Your task to perform on an android device: turn off smart reply in the gmail app Image 0: 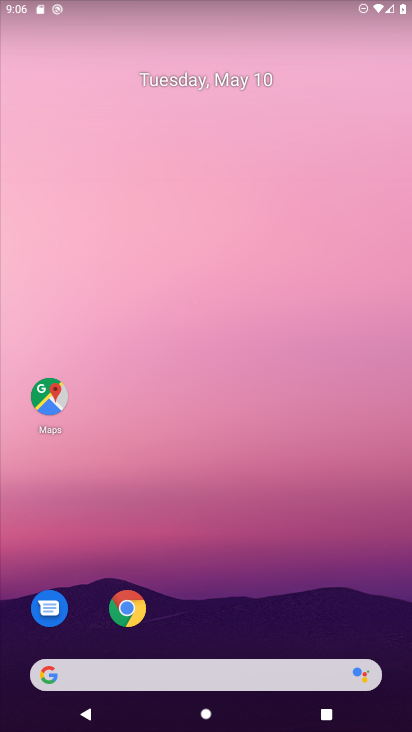
Step 0: drag from (370, 617) to (331, 32)
Your task to perform on an android device: turn off smart reply in the gmail app Image 1: 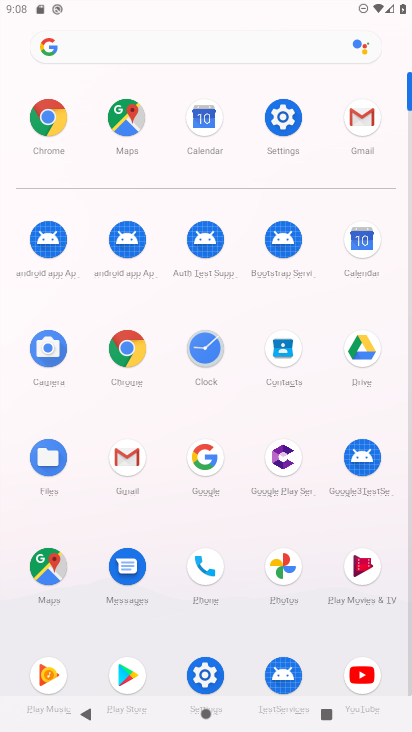
Step 1: click (133, 464)
Your task to perform on an android device: turn off smart reply in the gmail app Image 2: 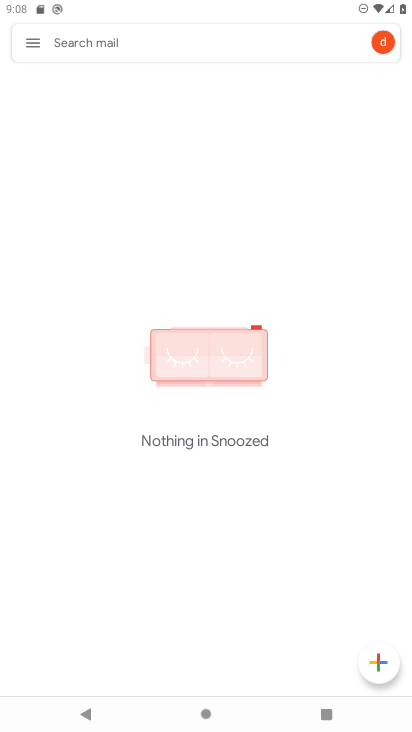
Step 2: click (40, 45)
Your task to perform on an android device: turn off smart reply in the gmail app Image 3: 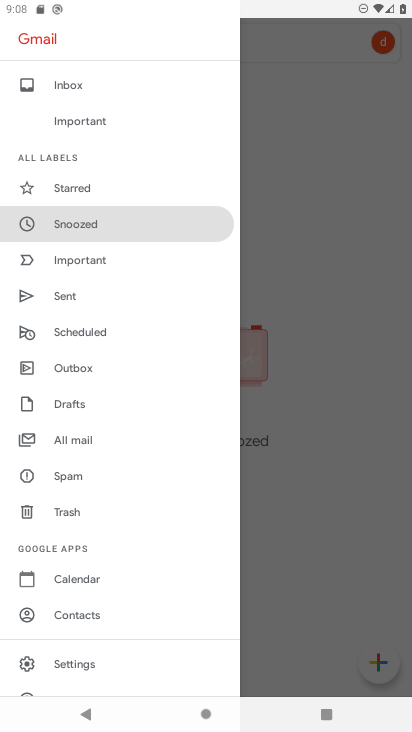
Step 3: click (96, 666)
Your task to perform on an android device: turn off smart reply in the gmail app Image 4: 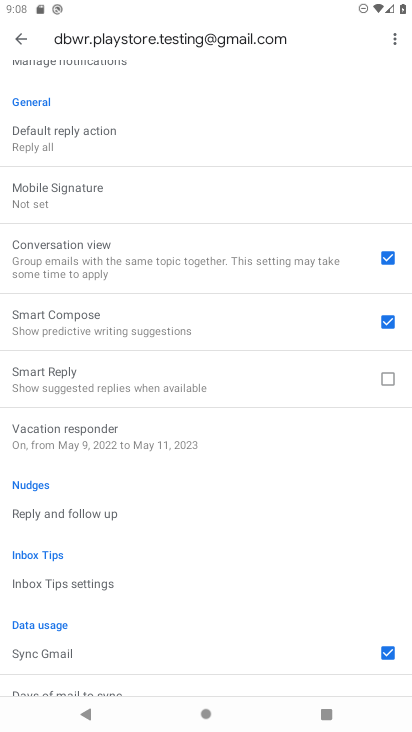
Step 4: task complete